Your task to perform on an android device: turn pop-ups off in chrome Image 0: 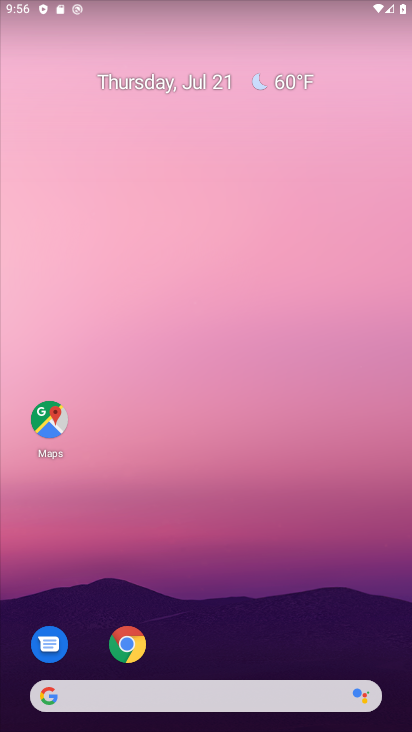
Step 0: click (130, 644)
Your task to perform on an android device: turn pop-ups off in chrome Image 1: 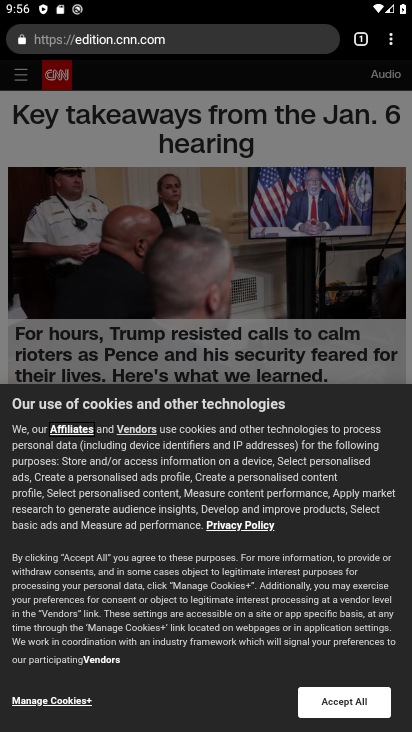
Step 1: click (395, 37)
Your task to perform on an android device: turn pop-ups off in chrome Image 2: 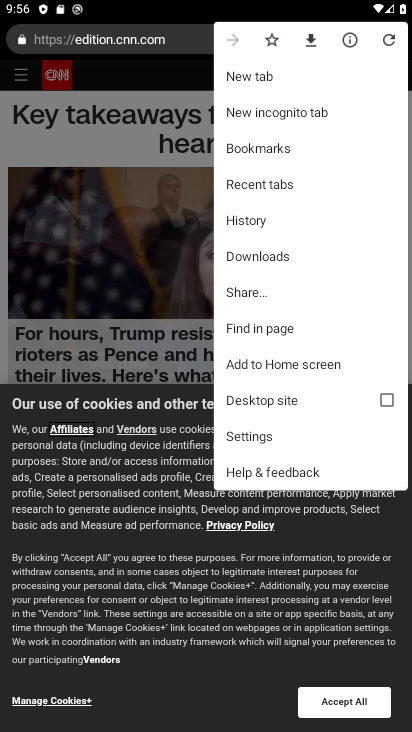
Step 2: click (259, 433)
Your task to perform on an android device: turn pop-ups off in chrome Image 3: 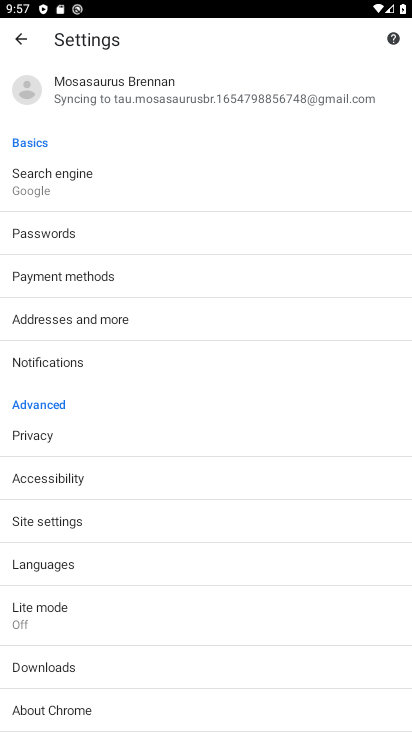
Step 3: click (60, 521)
Your task to perform on an android device: turn pop-ups off in chrome Image 4: 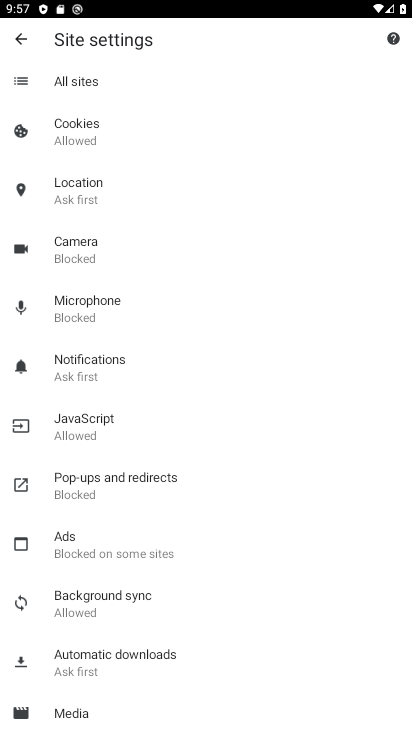
Step 4: click (105, 481)
Your task to perform on an android device: turn pop-ups off in chrome Image 5: 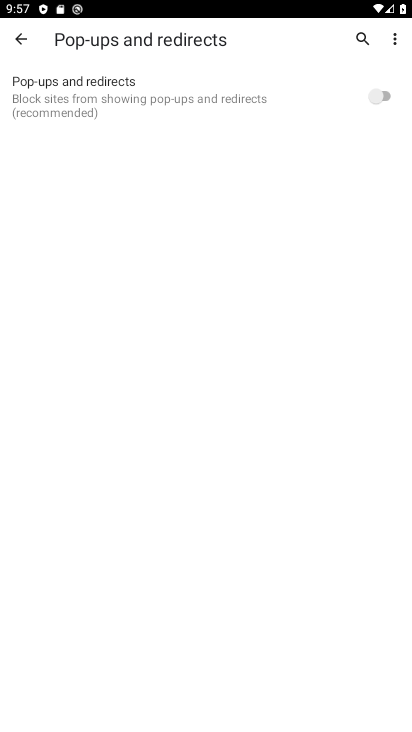
Step 5: task complete